Your task to perform on an android device: show emergency info Image 0: 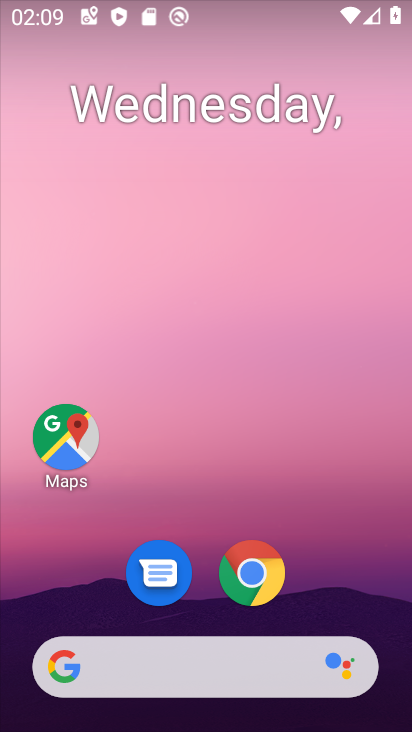
Step 0: drag from (358, 602) to (326, 96)
Your task to perform on an android device: show emergency info Image 1: 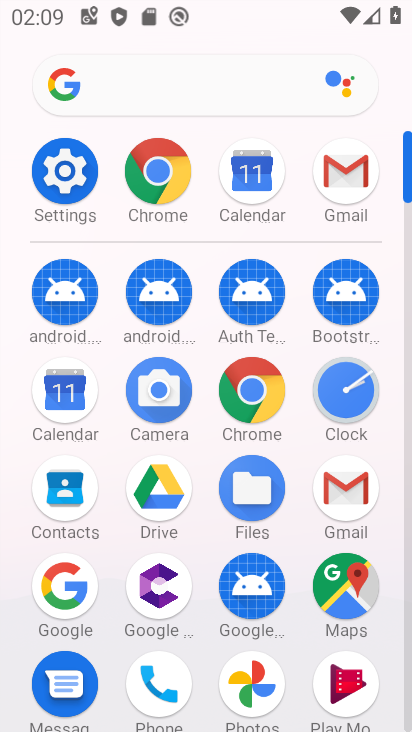
Step 1: click (72, 170)
Your task to perform on an android device: show emergency info Image 2: 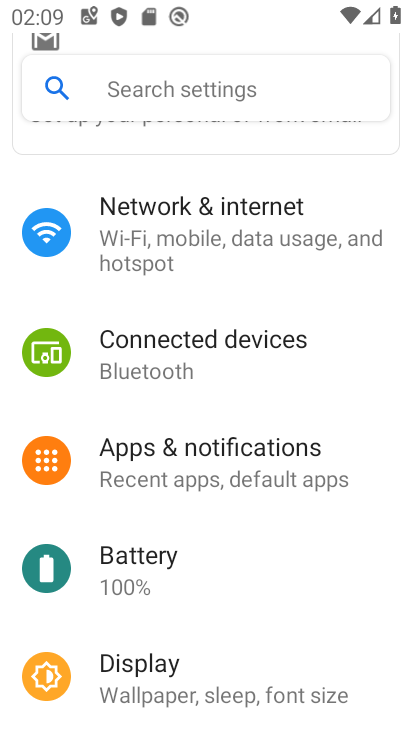
Step 2: drag from (193, 400) to (205, 174)
Your task to perform on an android device: show emergency info Image 3: 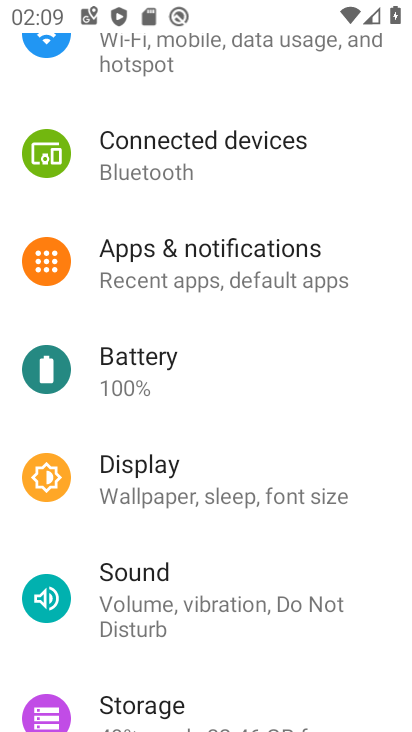
Step 3: drag from (150, 545) to (195, 200)
Your task to perform on an android device: show emergency info Image 4: 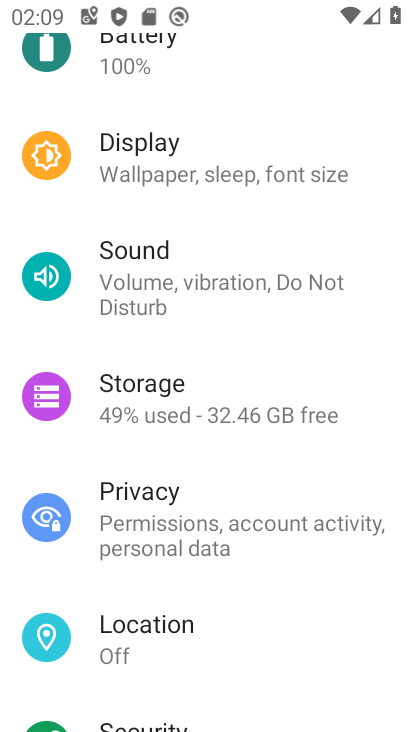
Step 4: drag from (132, 446) to (185, 113)
Your task to perform on an android device: show emergency info Image 5: 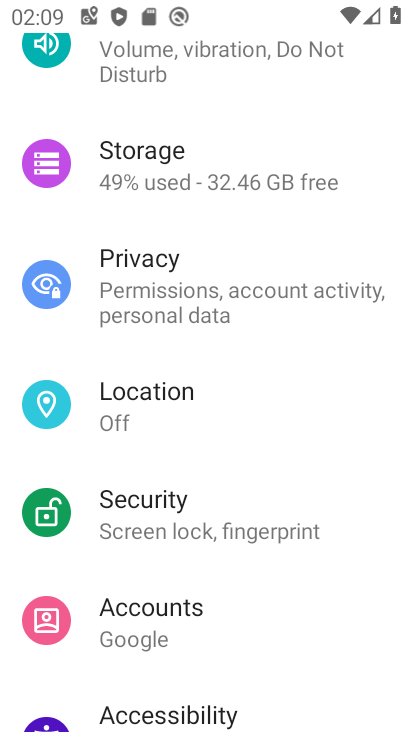
Step 5: drag from (130, 581) to (224, 121)
Your task to perform on an android device: show emergency info Image 6: 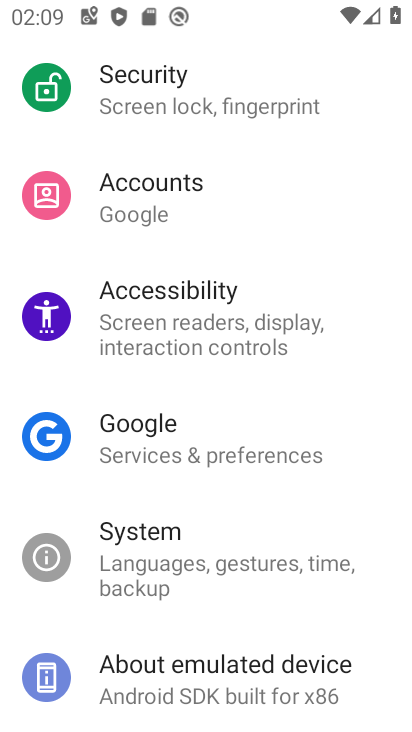
Step 6: drag from (165, 628) to (211, 308)
Your task to perform on an android device: show emergency info Image 7: 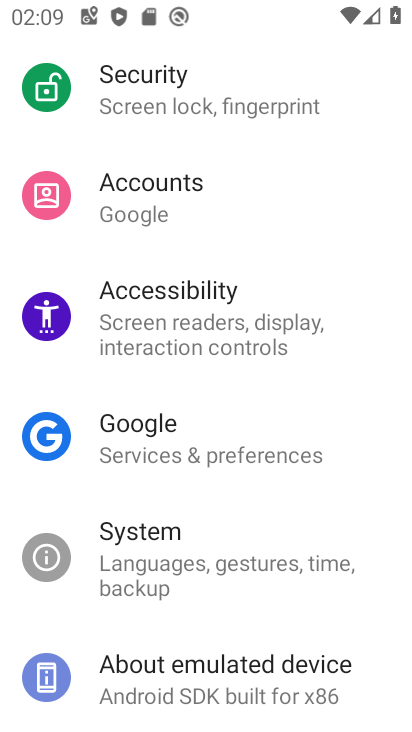
Step 7: click (204, 673)
Your task to perform on an android device: show emergency info Image 8: 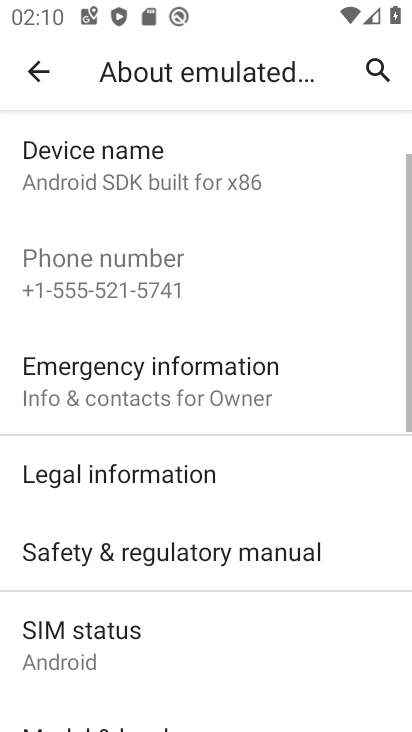
Step 8: click (191, 383)
Your task to perform on an android device: show emergency info Image 9: 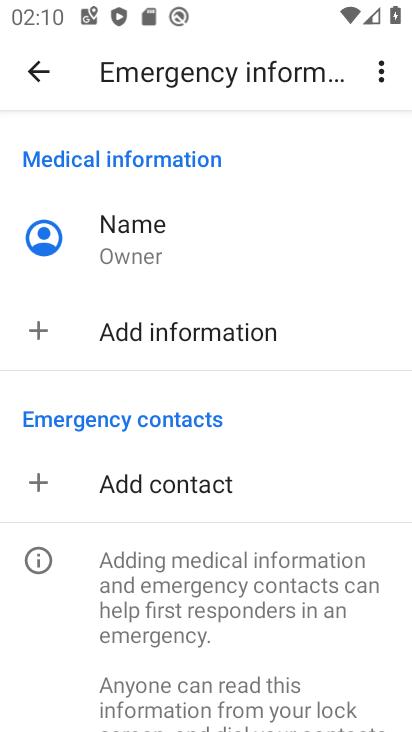
Step 9: task complete